Your task to perform on an android device: toggle location history Image 0: 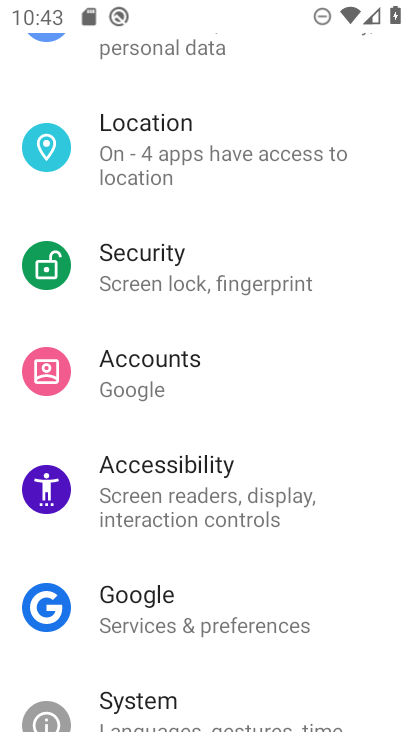
Step 0: click (134, 174)
Your task to perform on an android device: toggle location history Image 1: 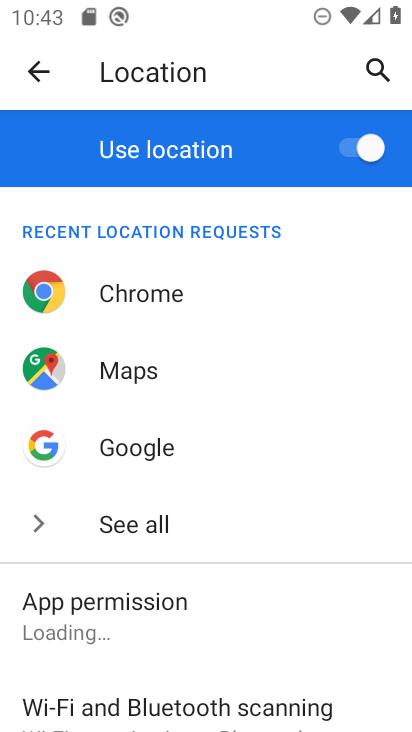
Step 1: drag from (137, 583) to (70, 82)
Your task to perform on an android device: toggle location history Image 2: 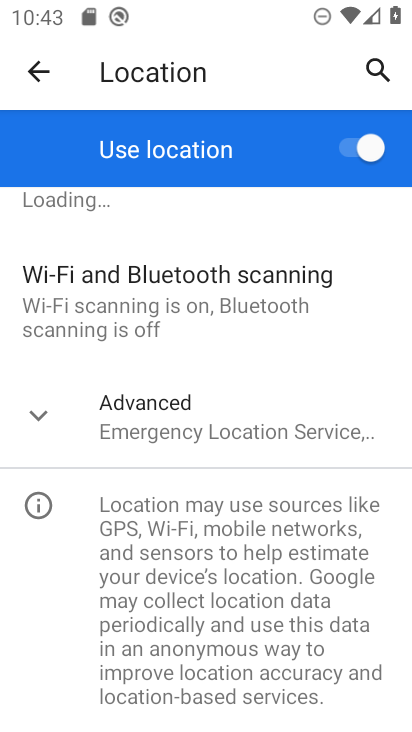
Step 2: click (148, 434)
Your task to perform on an android device: toggle location history Image 3: 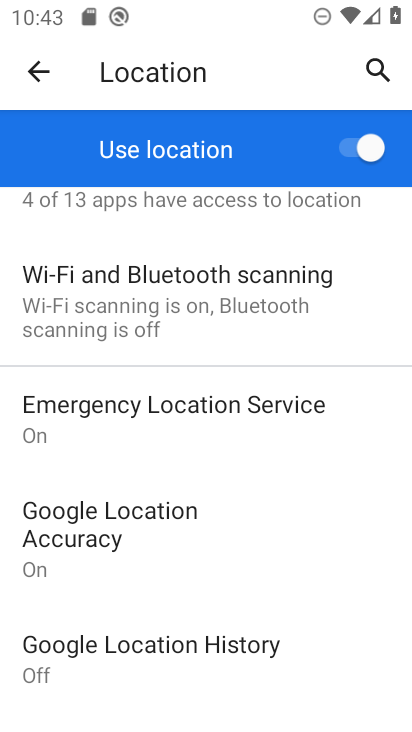
Step 3: click (199, 633)
Your task to perform on an android device: toggle location history Image 4: 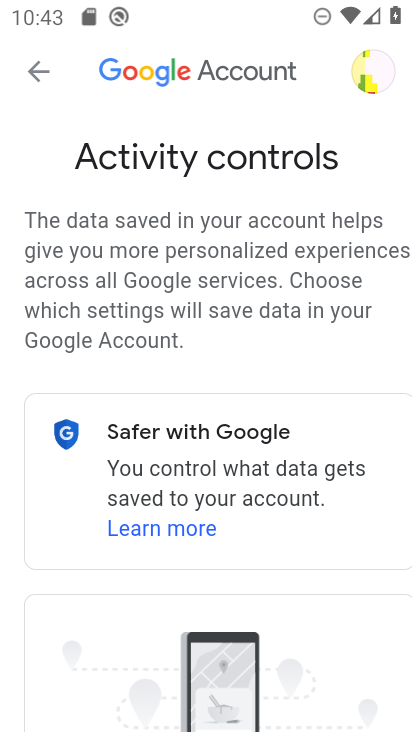
Step 4: drag from (119, 575) to (49, 11)
Your task to perform on an android device: toggle location history Image 5: 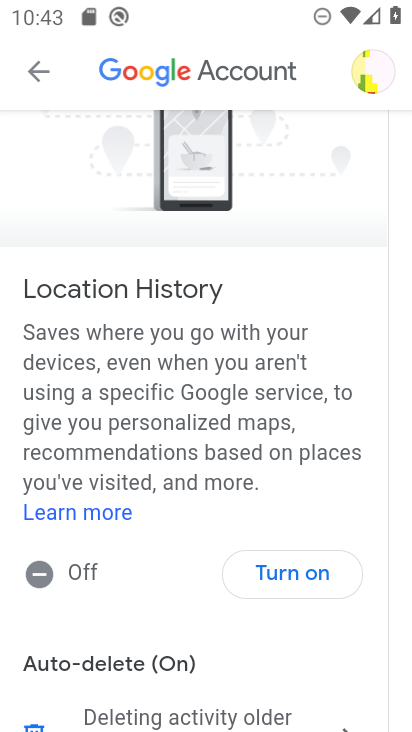
Step 5: click (296, 581)
Your task to perform on an android device: toggle location history Image 6: 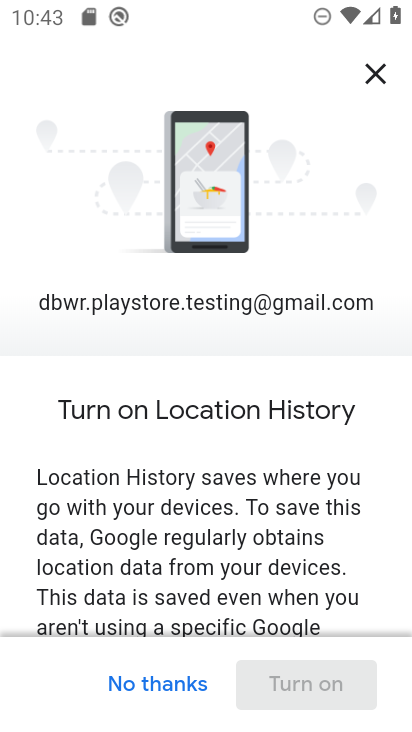
Step 6: drag from (215, 556) to (170, 31)
Your task to perform on an android device: toggle location history Image 7: 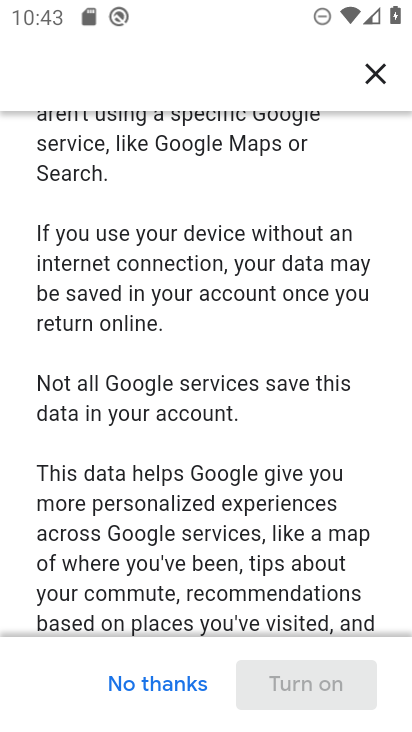
Step 7: drag from (173, 536) to (88, 17)
Your task to perform on an android device: toggle location history Image 8: 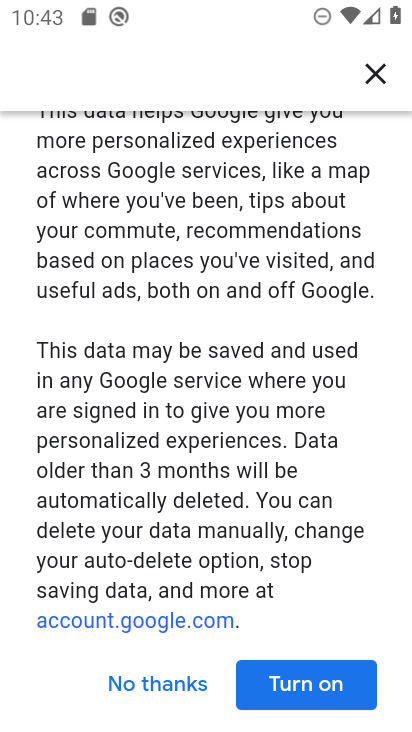
Step 8: click (302, 678)
Your task to perform on an android device: toggle location history Image 9: 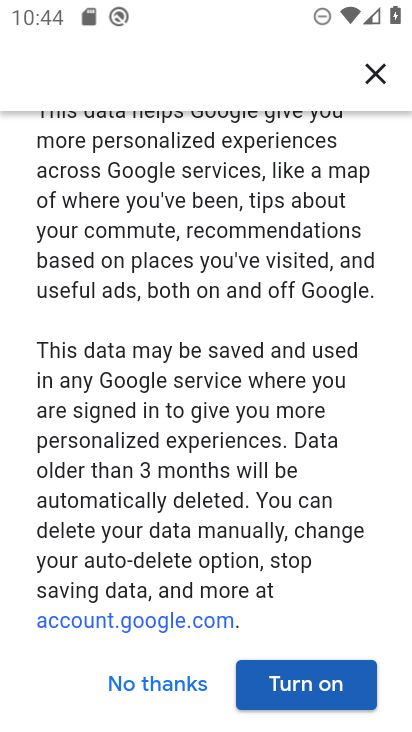
Step 9: click (317, 691)
Your task to perform on an android device: toggle location history Image 10: 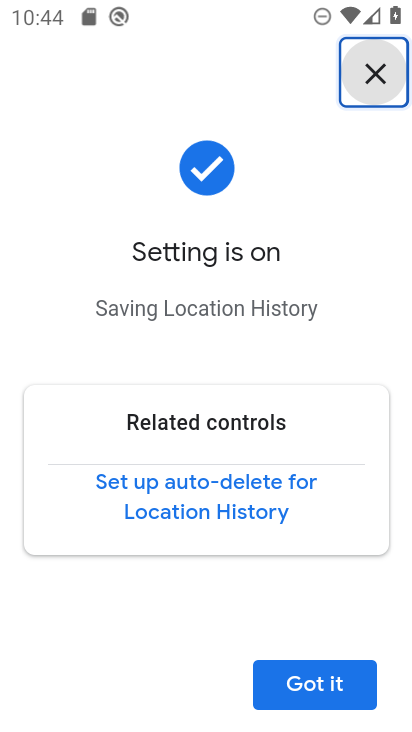
Step 10: click (317, 674)
Your task to perform on an android device: toggle location history Image 11: 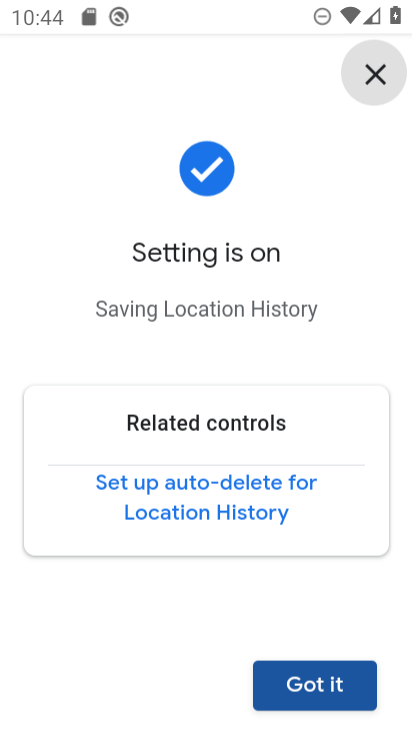
Step 11: task complete